Your task to perform on an android device: turn off picture-in-picture Image 0: 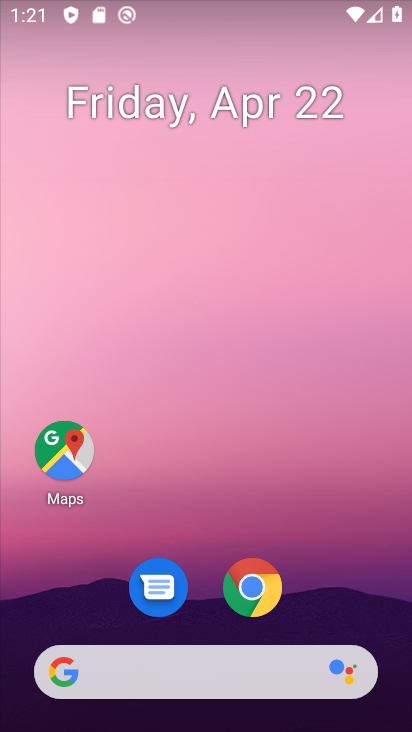
Step 0: drag from (223, 449) to (220, 89)
Your task to perform on an android device: turn off picture-in-picture Image 1: 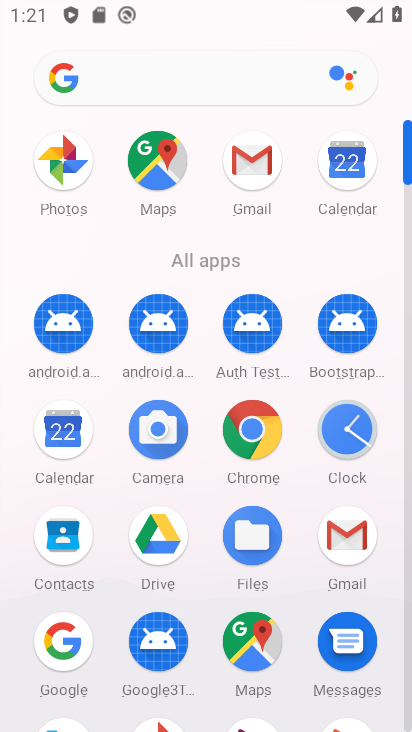
Step 1: drag from (263, 249) to (260, 24)
Your task to perform on an android device: turn off picture-in-picture Image 2: 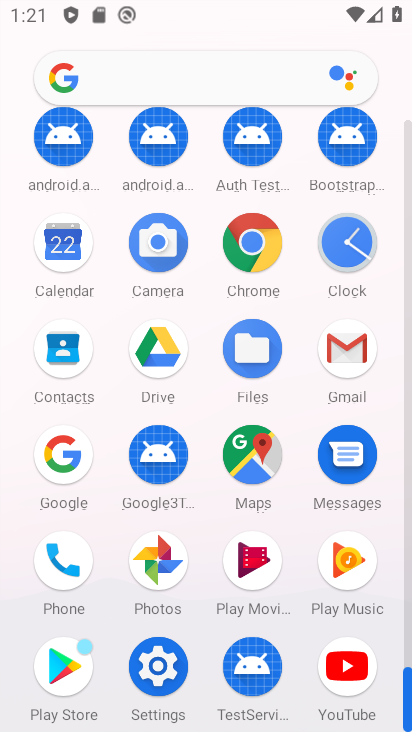
Step 2: click (171, 659)
Your task to perform on an android device: turn off picture-in-picture Image 3: 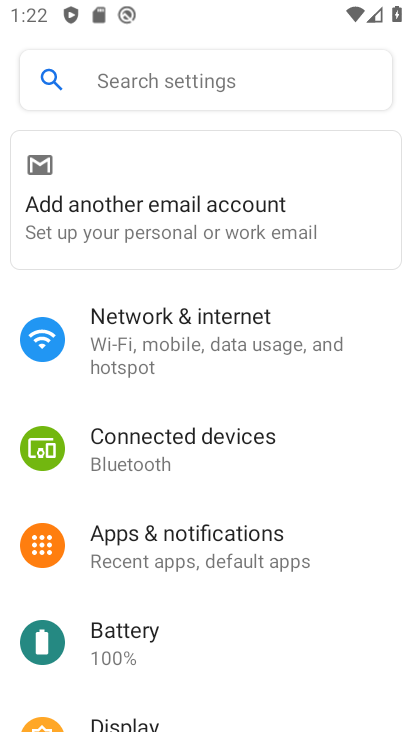
Step 3: drag from (164, 618) to (180, 354)
Your task to perform on an android device: turn off picture-in-picture Image 4: 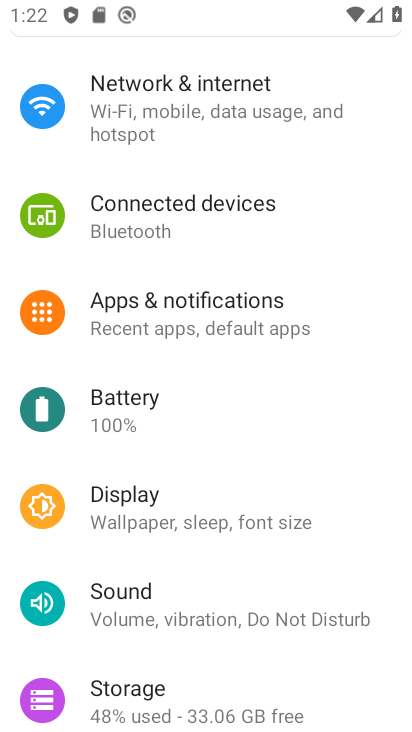
Step 4: click (187, 324)
Your task to perform on an android device: turn off picture-in-picture Image 5: 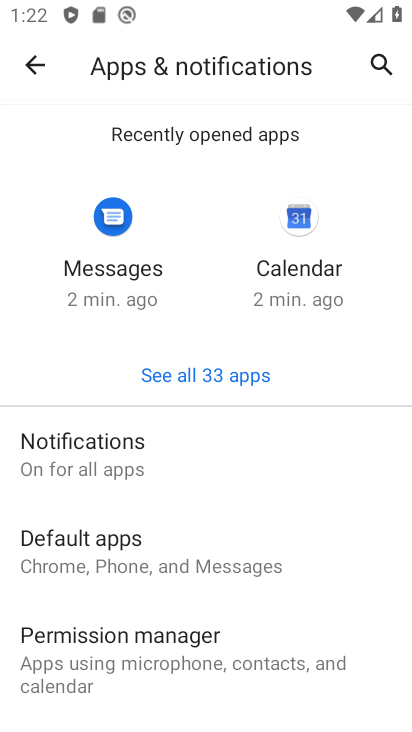
Step 5: drag from (194, 610) to (200, 207)
Your task to perform on an android device: turn off picture-in-picture Image 6: 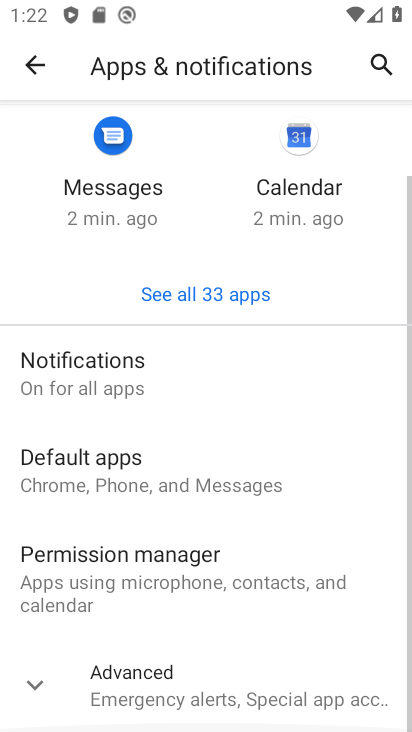
Step 6: click (146, 663)
Your task to perform on an android device: turn off picture-in-picture Image 7: 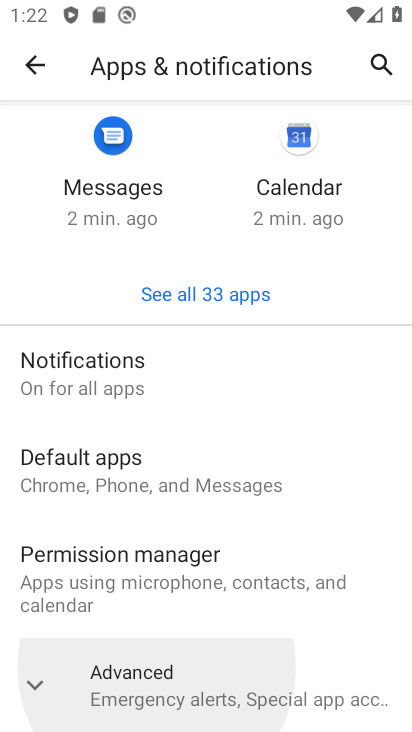
Step 7: drag from (168, 608) to (188, 164)
Your task to perform on an android device: turn off picture-in-picture Image 8: 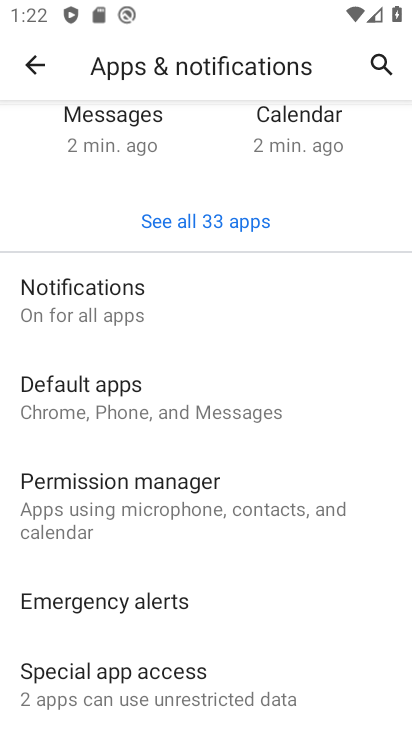
Step 8: click (182, 675)
Your task to perform on an android device: turn off picture-in-picture Image 9: 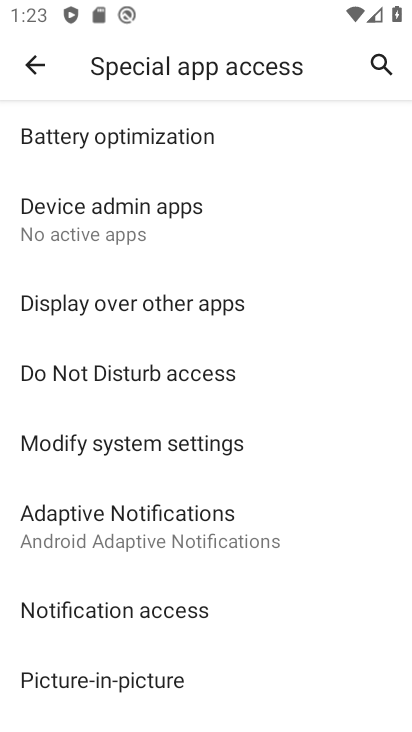
Step 9: drag from (153, 573) to (164, 319)
Your task to perform on an android device: turn off picture-in-picture Image 10: 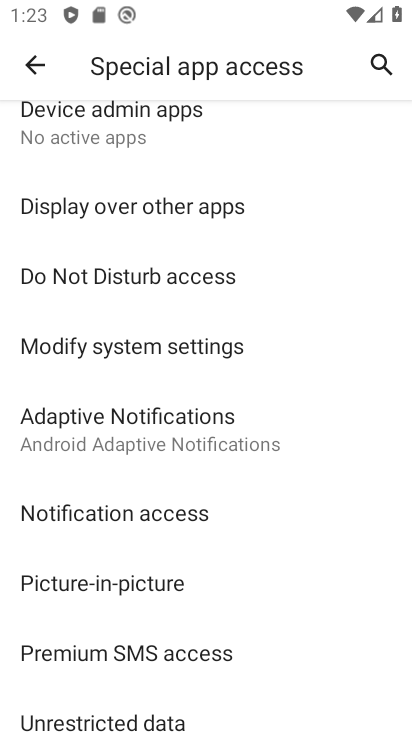
Step 10: click (145, 608)
Your task to perform on an android device: turn off picture-in-picture Image 11: 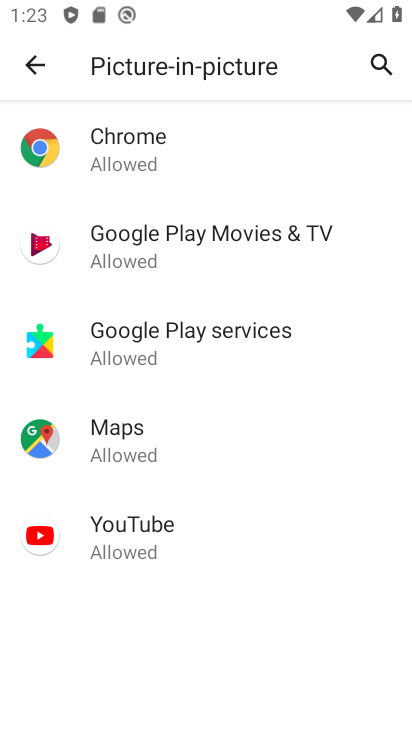
Step 11: click (198, 246)
Your task to perform on an android device: turn off picture-in-picture Image 12: 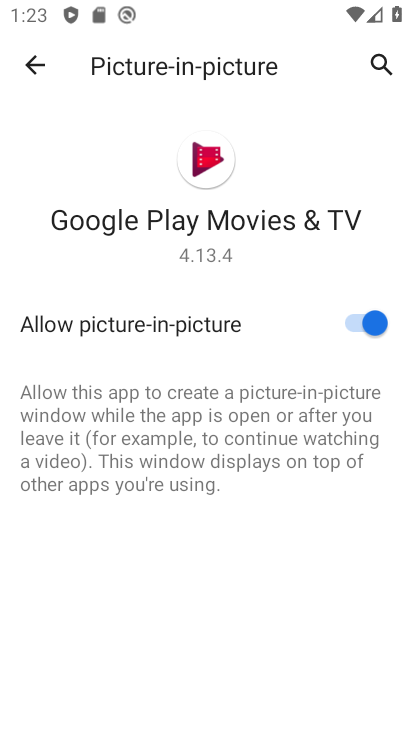
Step 12: click (353, 322)
Your task to perform on an android device: turn off picture-in-picture Image 13: 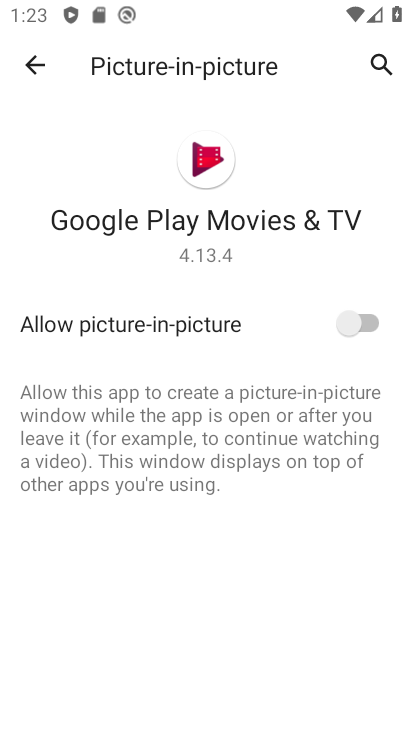
Step 13: task complete